Your task to perform on an android device: turn off airplane mode Image 0: 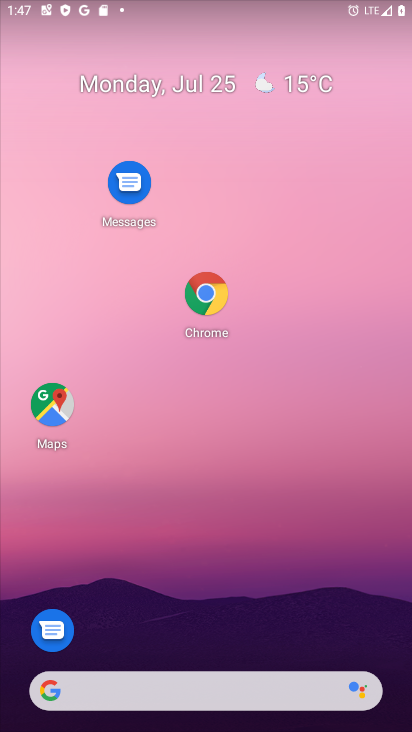
Step 0: drag from (295, 9) to (278, 508)
Your task to perform on an android device: turn off airplane mode Image 1: 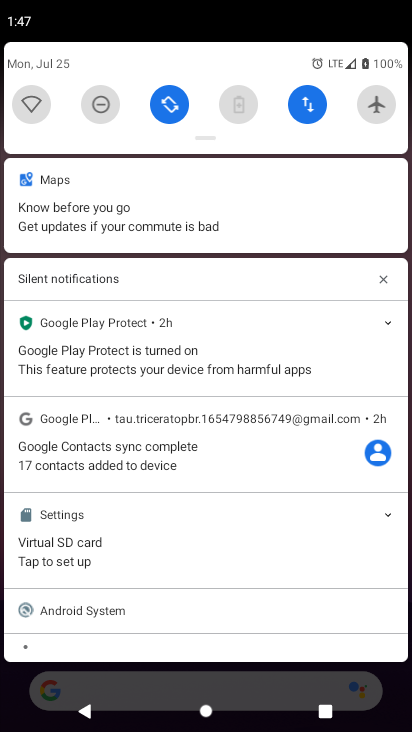
Step 1: task complete